Your task to perform on an android device: change the clock display to digital Image 0: 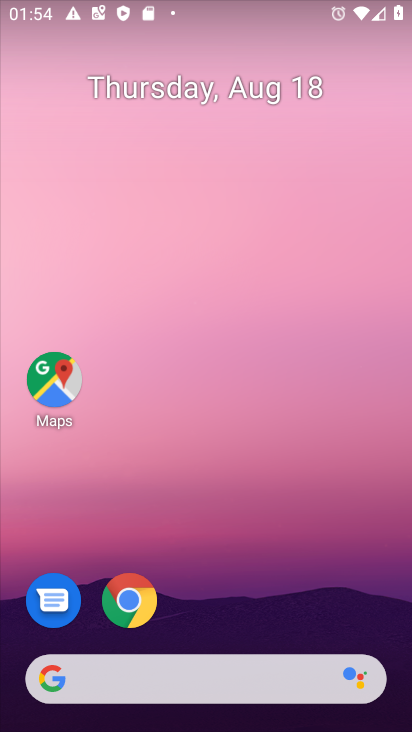
Step 0: press home button
Your task to perform on an android device: change the clock display to digital Image 1: 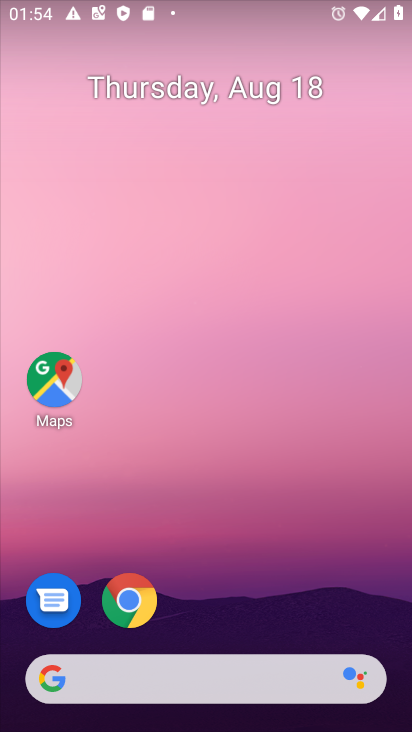
Step 1: drag from (236, 541) to (282, 147)
Your task to perform on an android device: change the clock display to digital Image 2: 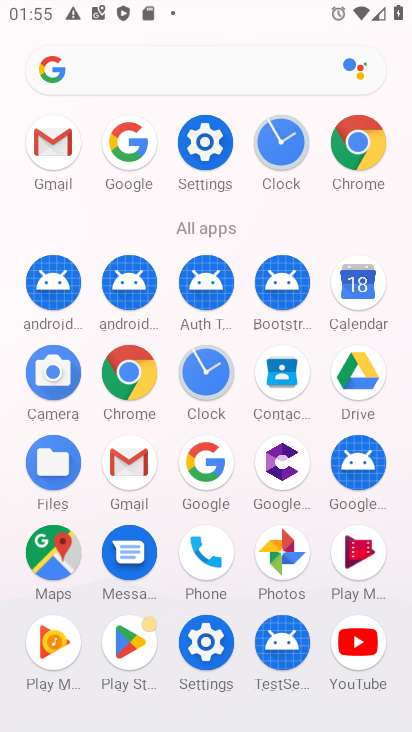
Step 2: click (204, 387)
Your task to perform on an android device: change the clock display to digital Image 3: 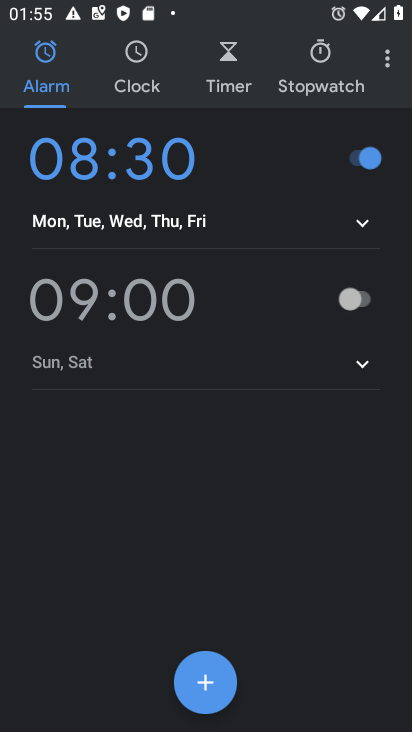
Step 3: click (388, 66)
Your task to perform on an android device: change the clock display to digital Image 4: 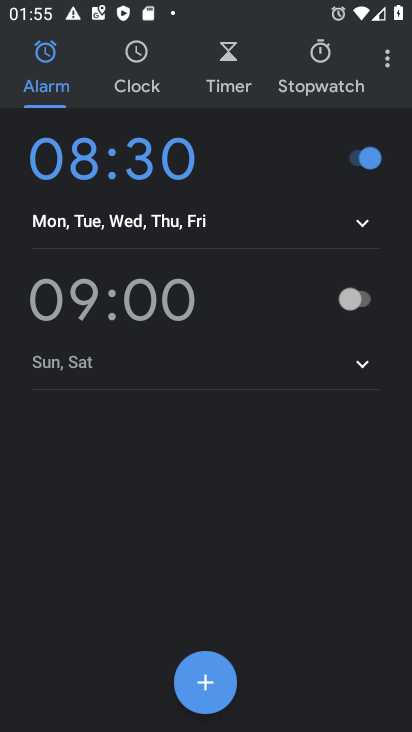
Step 4: click (384, 52)
Your task to perform on an android device: change the clock display to digital Image 5: 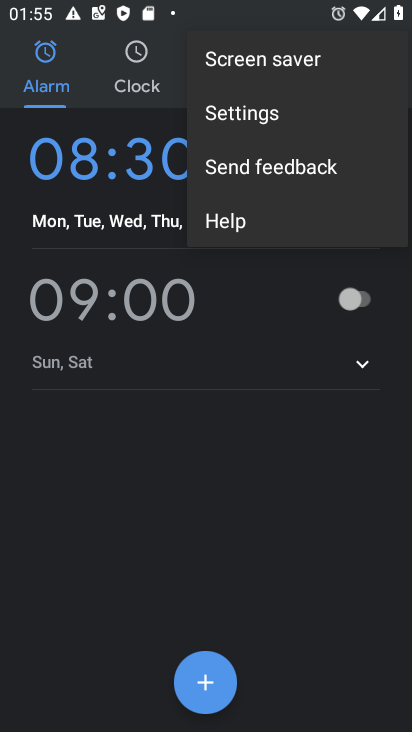
Step 5: click (259, 115)
Your task to perform on an android device: change the clock display to digital Image 6: 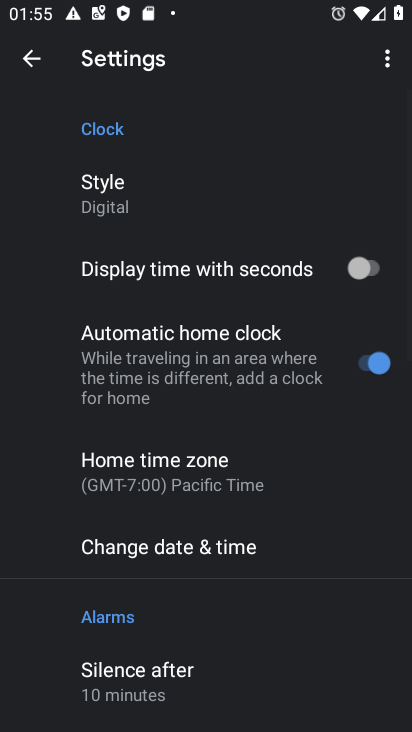
Step 6: click (152, 188)
Your task to perform on an android device: change the clock display to digital Image 7: 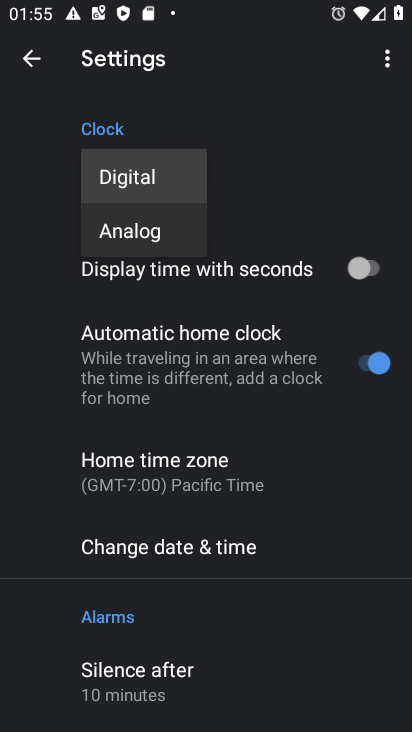
Step 7: task complete